Your task to perform on an android device: Open Amazon Image 0: 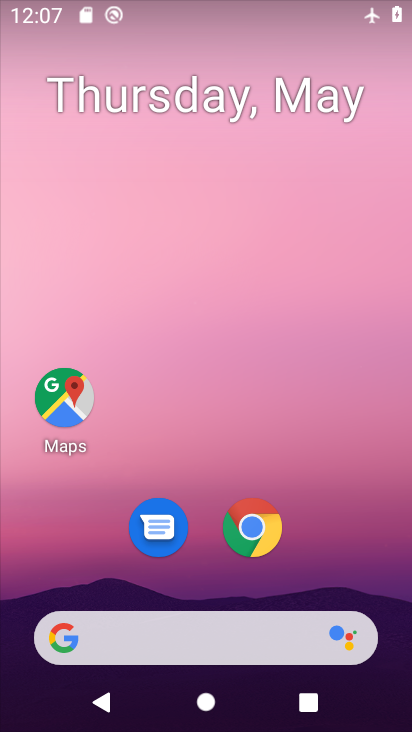
Step 0: click (242, 532)
Your task to perform on an android device: Open Amazon Image 1: 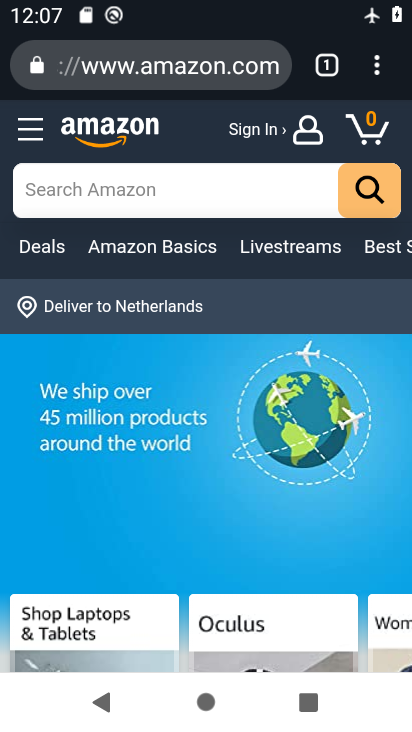
Step 1: task complete